Your task to perform on an android device: Go to internet settings Image 0: 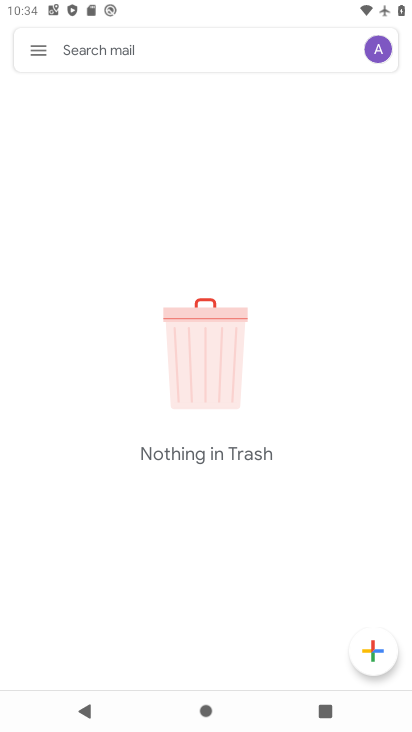
Step 0: press home button
Your task to perform on an android device: Go to internet settings Image 1: 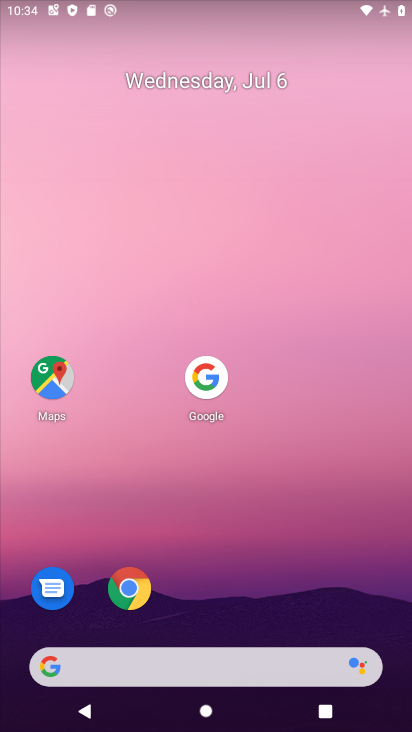
Step 1: drag from (216, 670) to (388, 120)
Your task to perform on an android device: Go to internet settings Image 2: 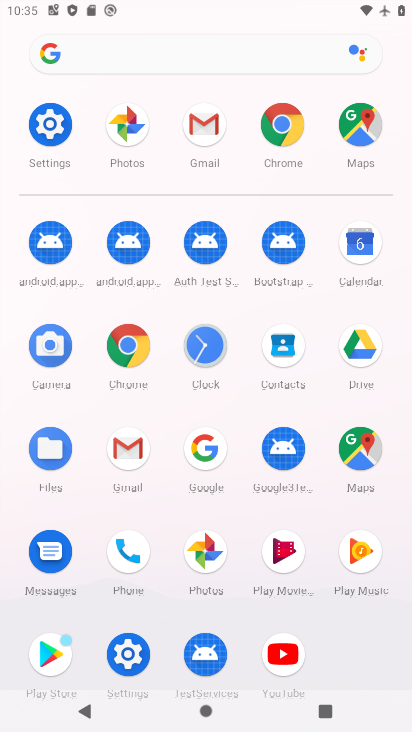
Step 2: click (48, 120)
Your task to perform on an android device: Go to internet settings Image 3: 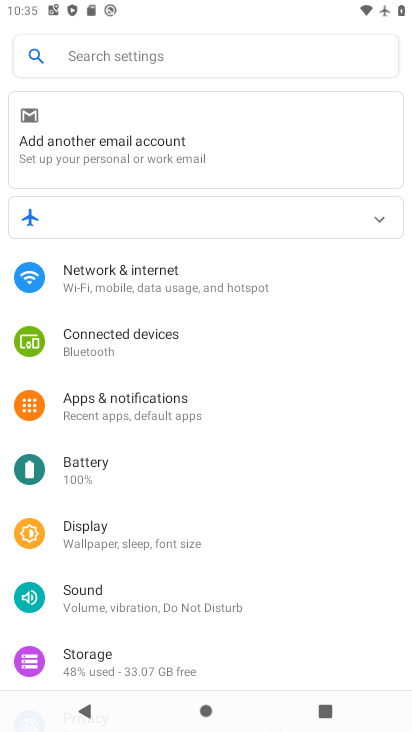
Step 3: click (164, 276)
Your task to perform on an android device: Go to internet settings Image 4: 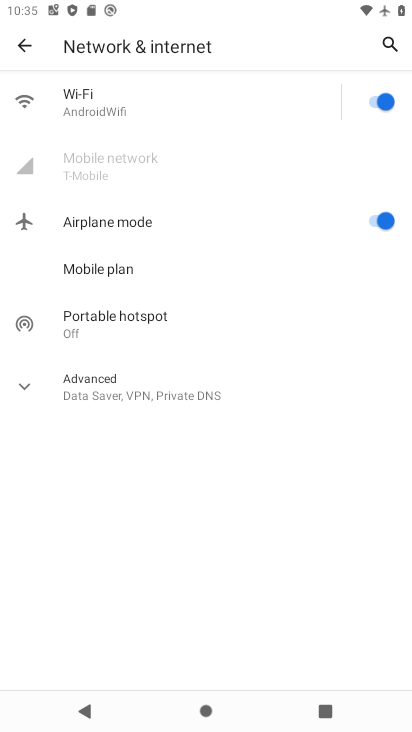
Step 4: task complete